Your task to perform on an android device: Show me recent news Image 0: 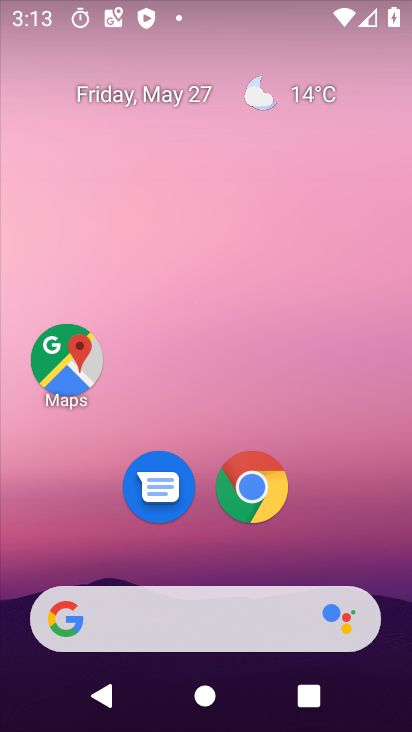
Step 0: drag from (362, 503) to (335, 0)
Your task to perform on an android device: Show me recent news Image 1: 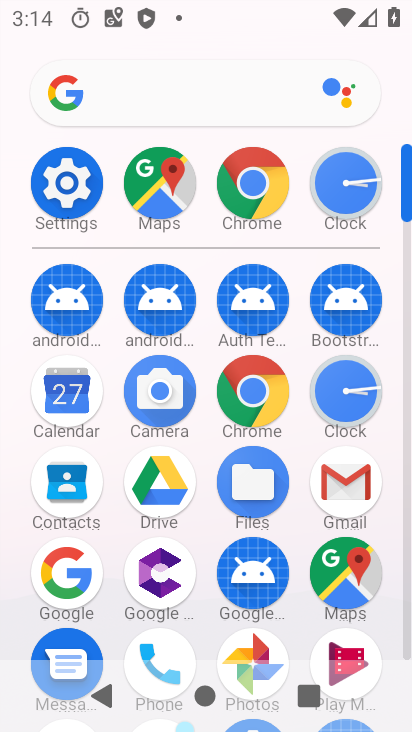
Step 1: click (256, 179)
Your task to perform on an android device: Show me recent news Image 2: 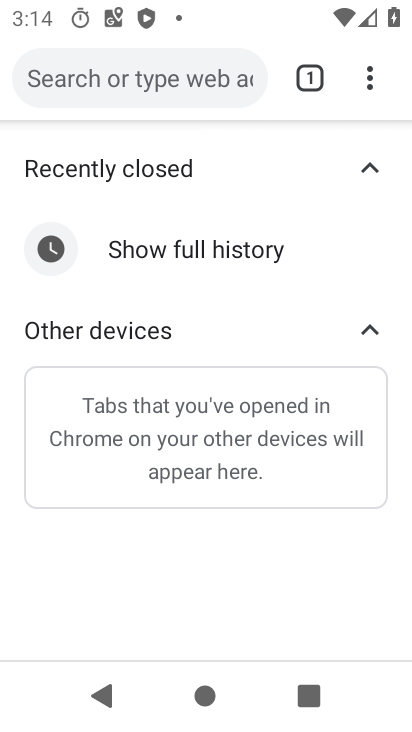
Step 2: click (175, 73)
Your task to perform on an android device: Show me recent news Image 3: 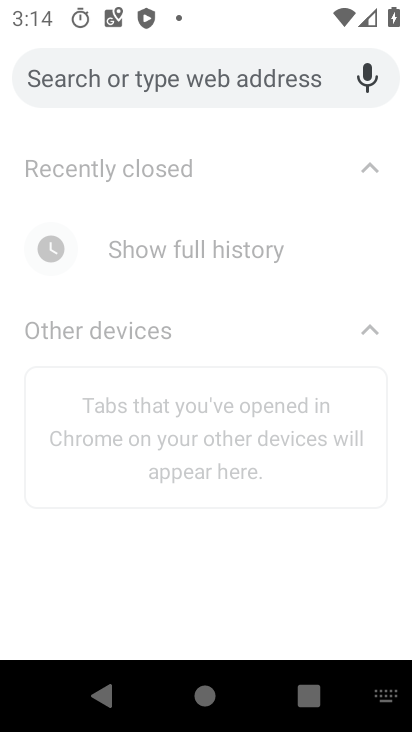
Step 3: type "news"
Your task to perform on an android device: Show me recent news Image 4: 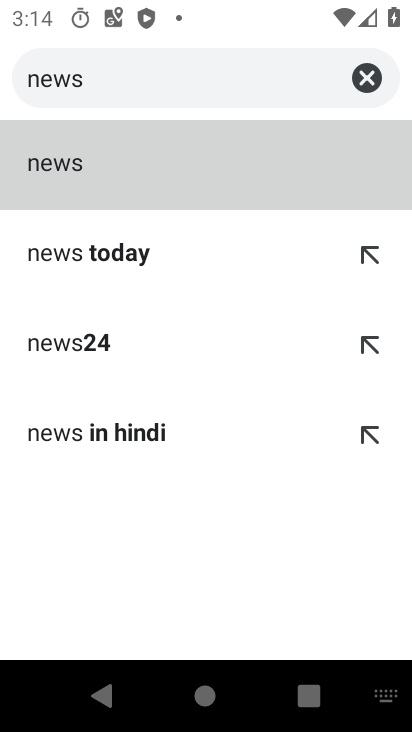
Step 4: click (71, 153)
Your task to perform on an android device: Show me recent news Image 5: 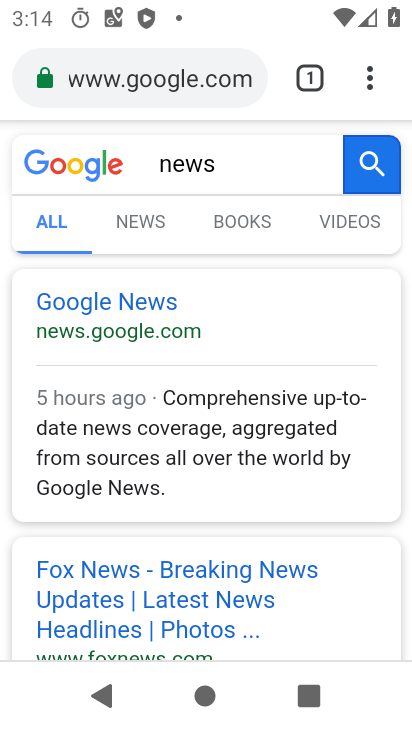
Step 5: click (128, 223)
Your task to perform on an android device: Show me recent news Image 6: 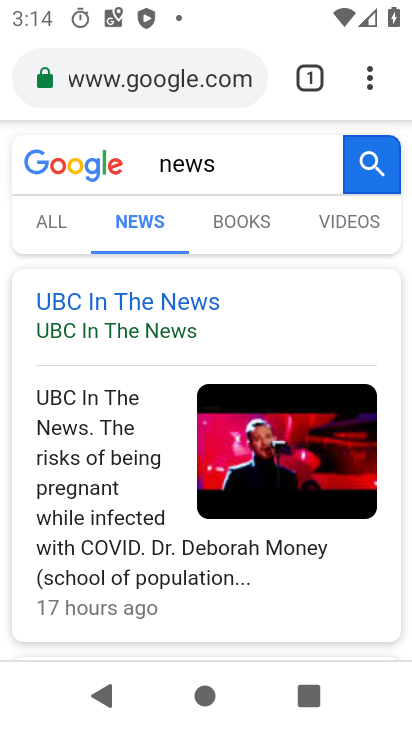
Step 6: task complete